Your task to perform on an android device: Go to settings Image 0: 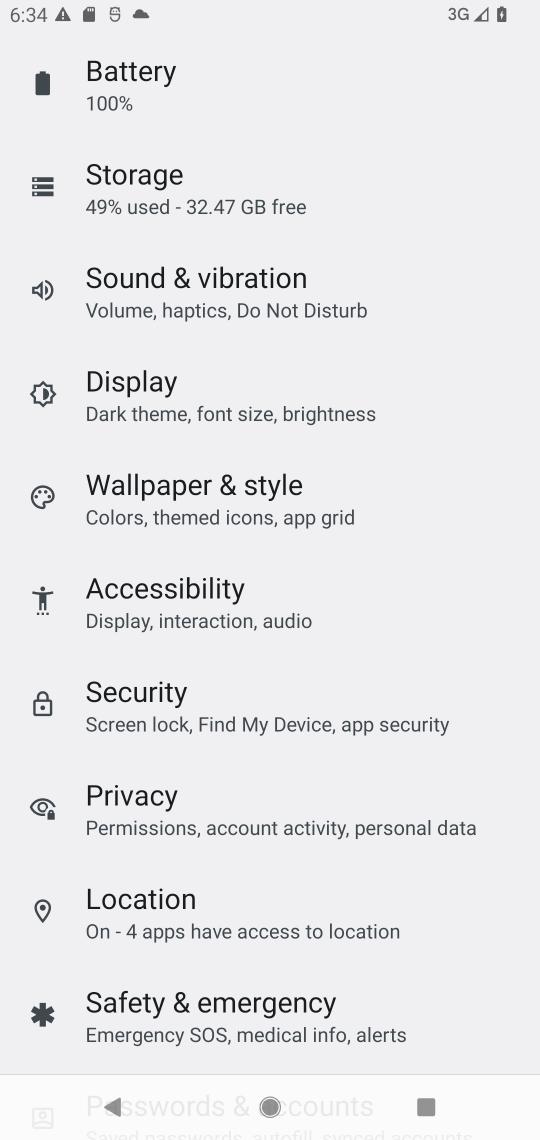
Step 0: drag from (407, 61) to (348, 809)
Your task to perform on an android device: Go to settings Image 1: 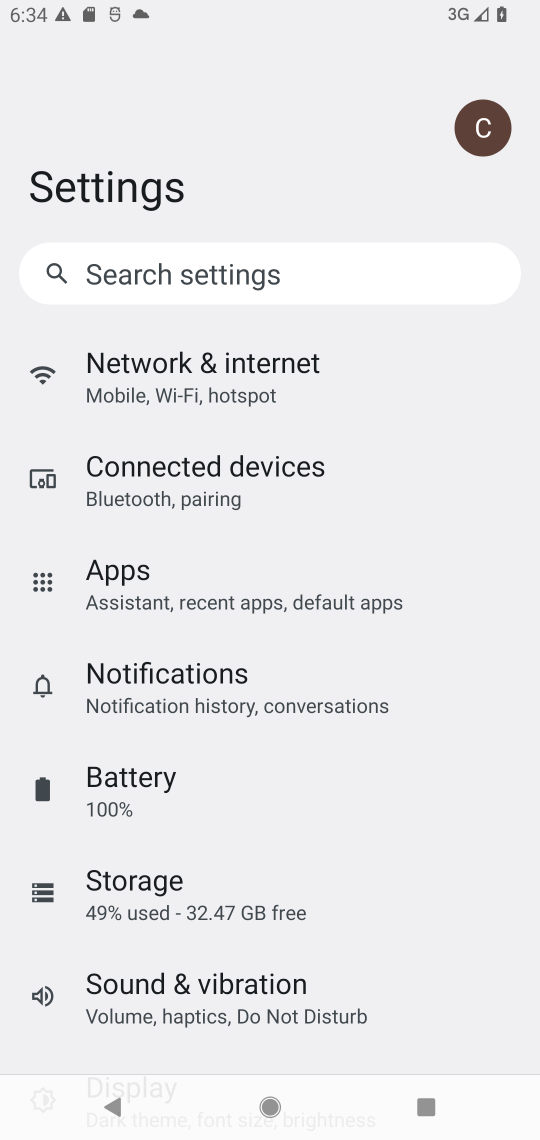
Step 1: task complete